Your task to perform on an android device: delete the emails in spam in the gmail app Image 0: 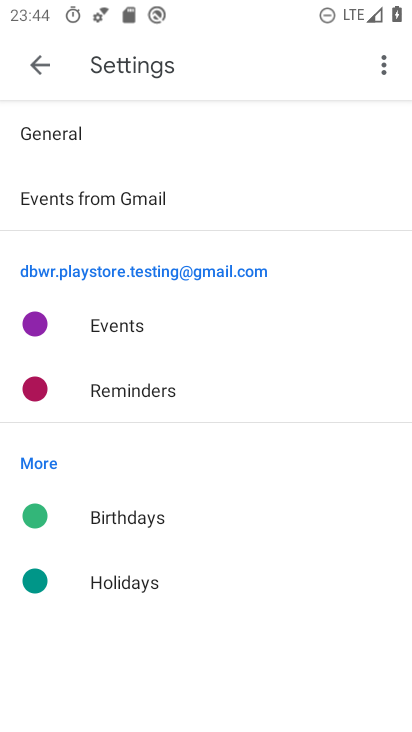
Step 0: press home button
Your task to perform on an android device: delete the emails in spam in the gmail app Image 1: 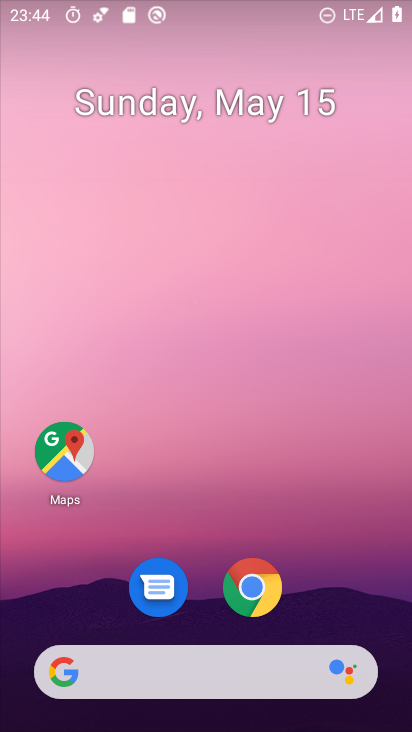
Step 1: drag from (200, 618) to (202, 284)
Your task to perform on an android device: delete the emails in spam in the gmail app Image 2: 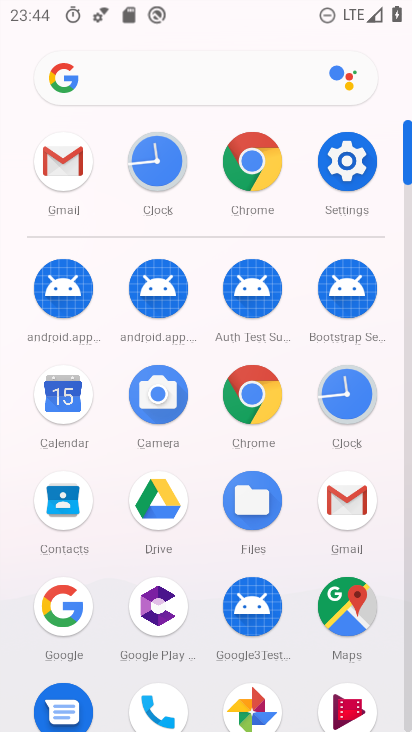
Step 2: click (60, 170)
Your task to perform on an android device: delete the emails in spam in the gmail app Image 3: 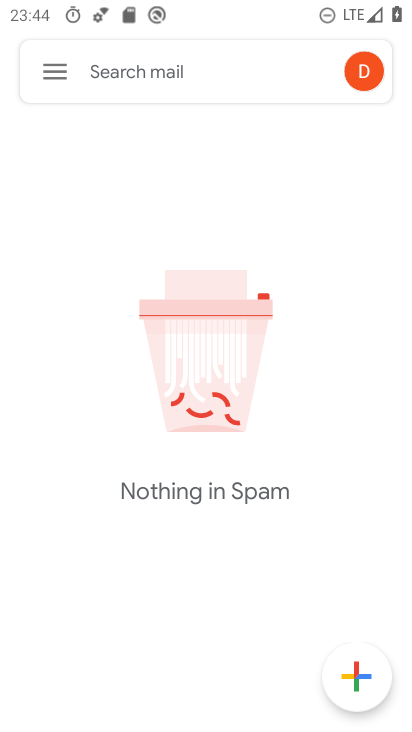
Step 3: click (55, 88)
Your task to perform on an android device: delete the emails in spam in the gmail app Image 4: 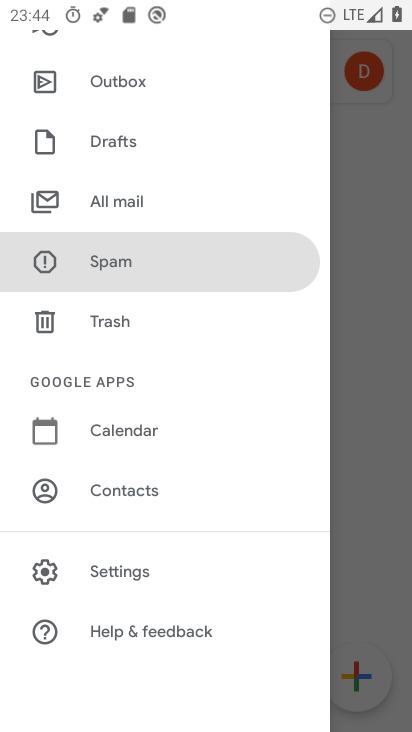
Step 4: click (114, 269)
Your task to perform on an android device: delete the emails in spam in the gmail app Image 5: 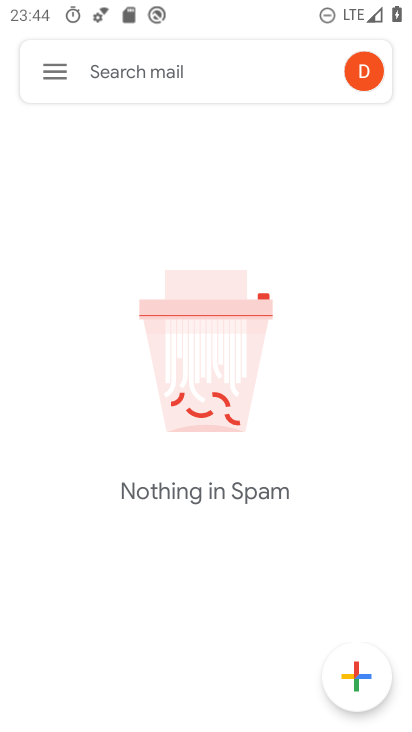
Step 5: task complete